Your task to perform on an android device: install app "Etsy: Buy & Sell Unique Items" Image 0: 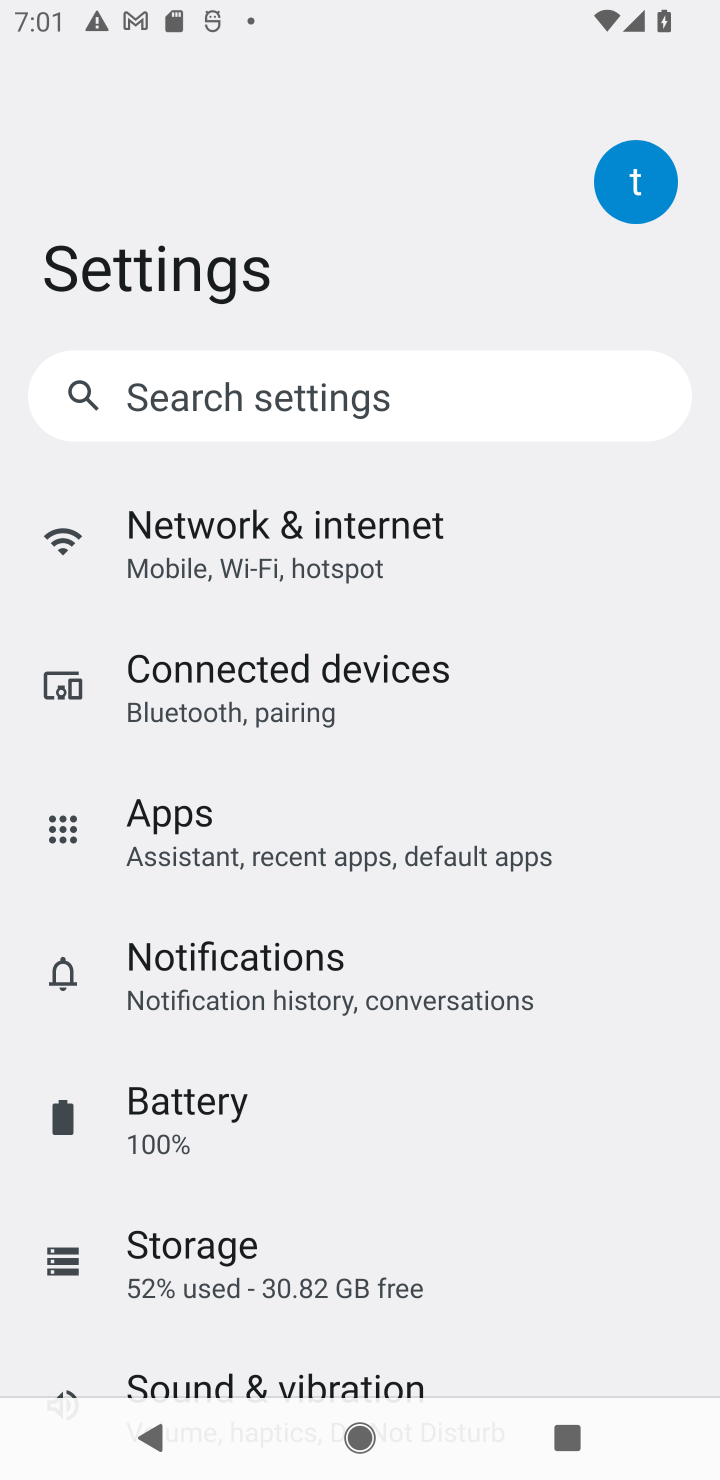
Step 0: press home button
Your task to perform on an android device: install app "Etsy: Buy & Sell Unique Items" Image 1: 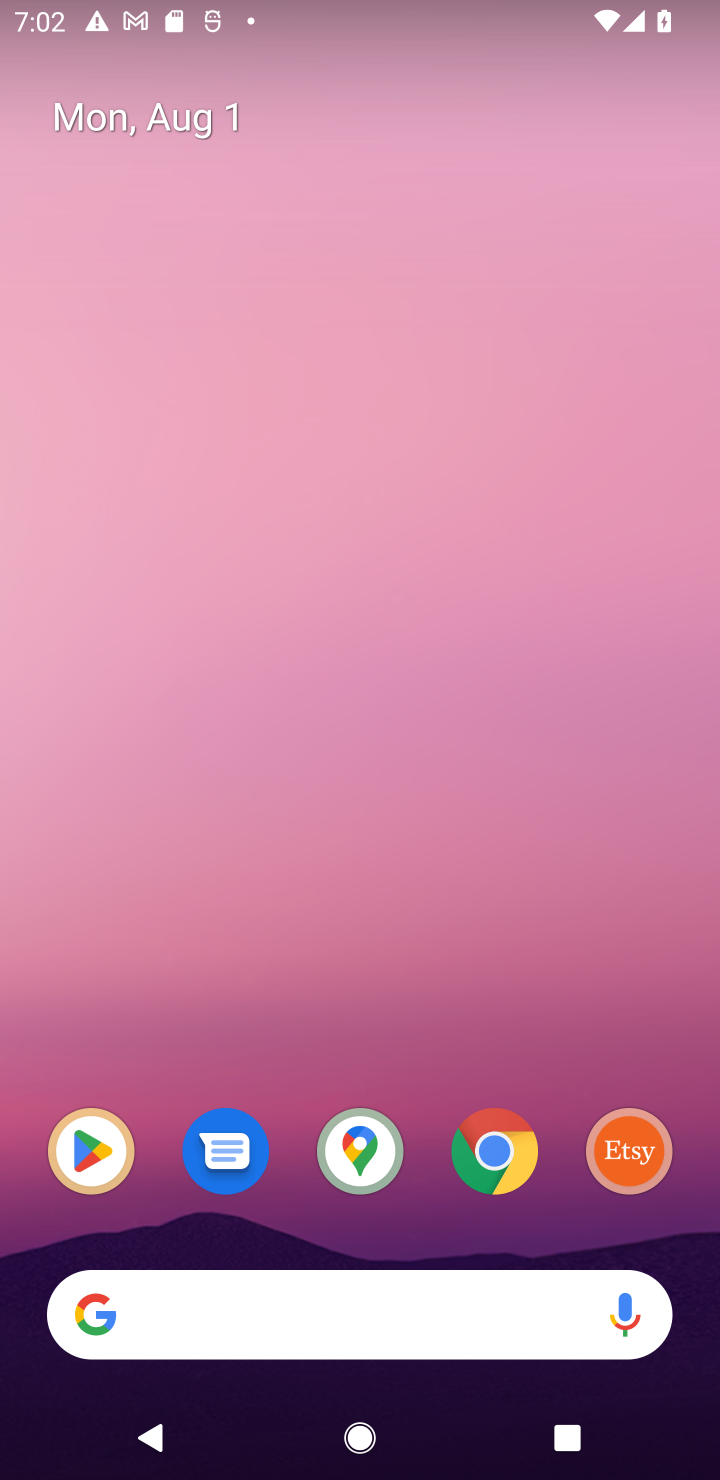
Step 1: click (397, 1292)
Your task to perform on an android device: install app "Etsy: Buy & Sell Unique Items" Image 2: 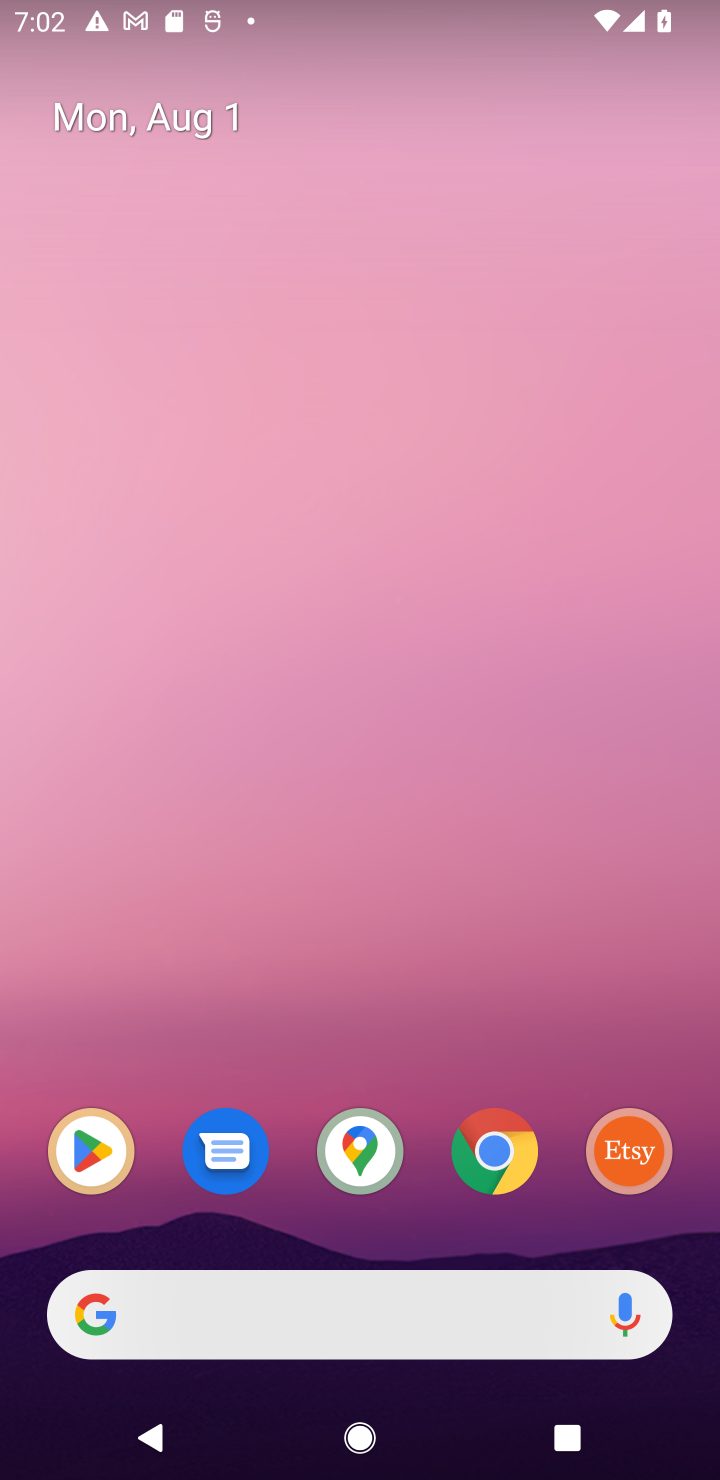
Step 2: drag from (397, 1292) to (255, 470)
Your task to perform on an android device: install app "Etsy: Buy & Sell Unique Items" Image 3: 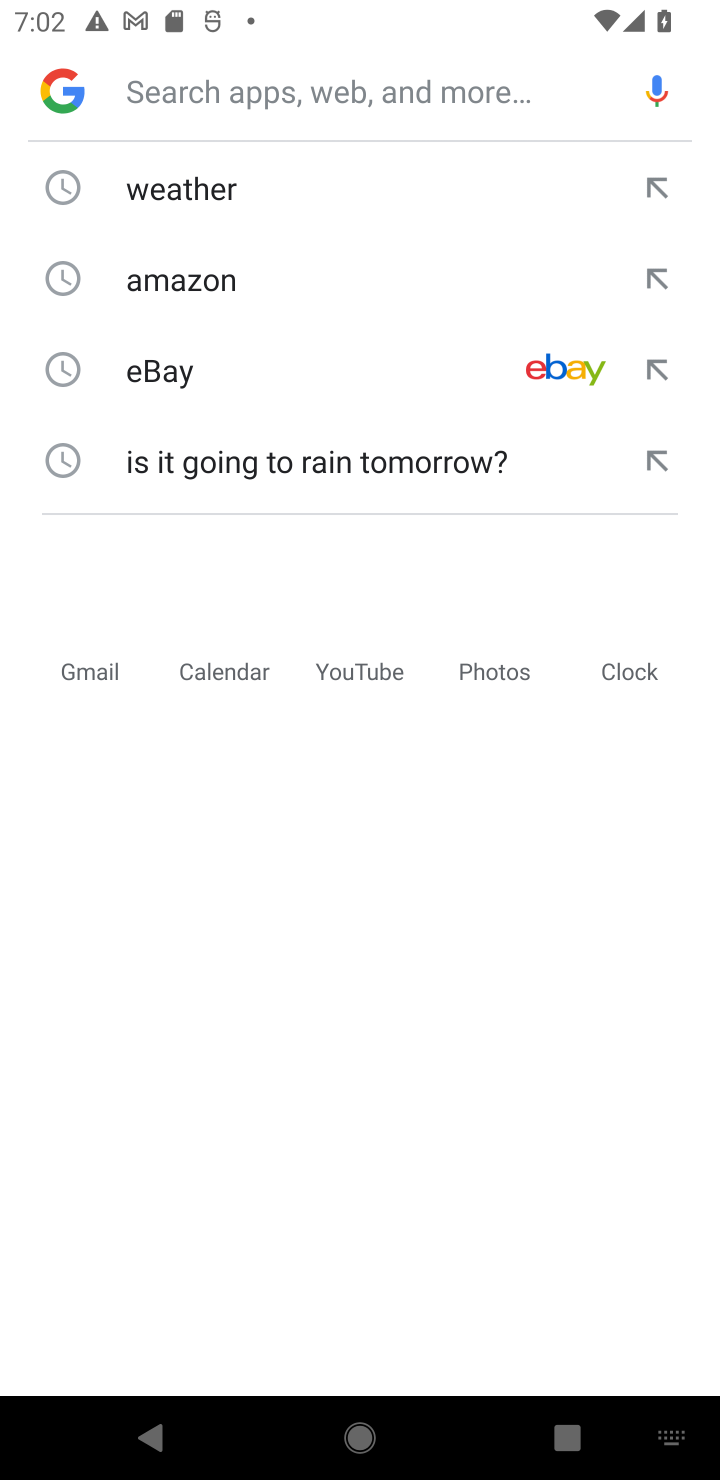
Step 3: press home button
Your task to perform on an android device: install app "Etsy: Buy & Sell Unique Items" Image 4: 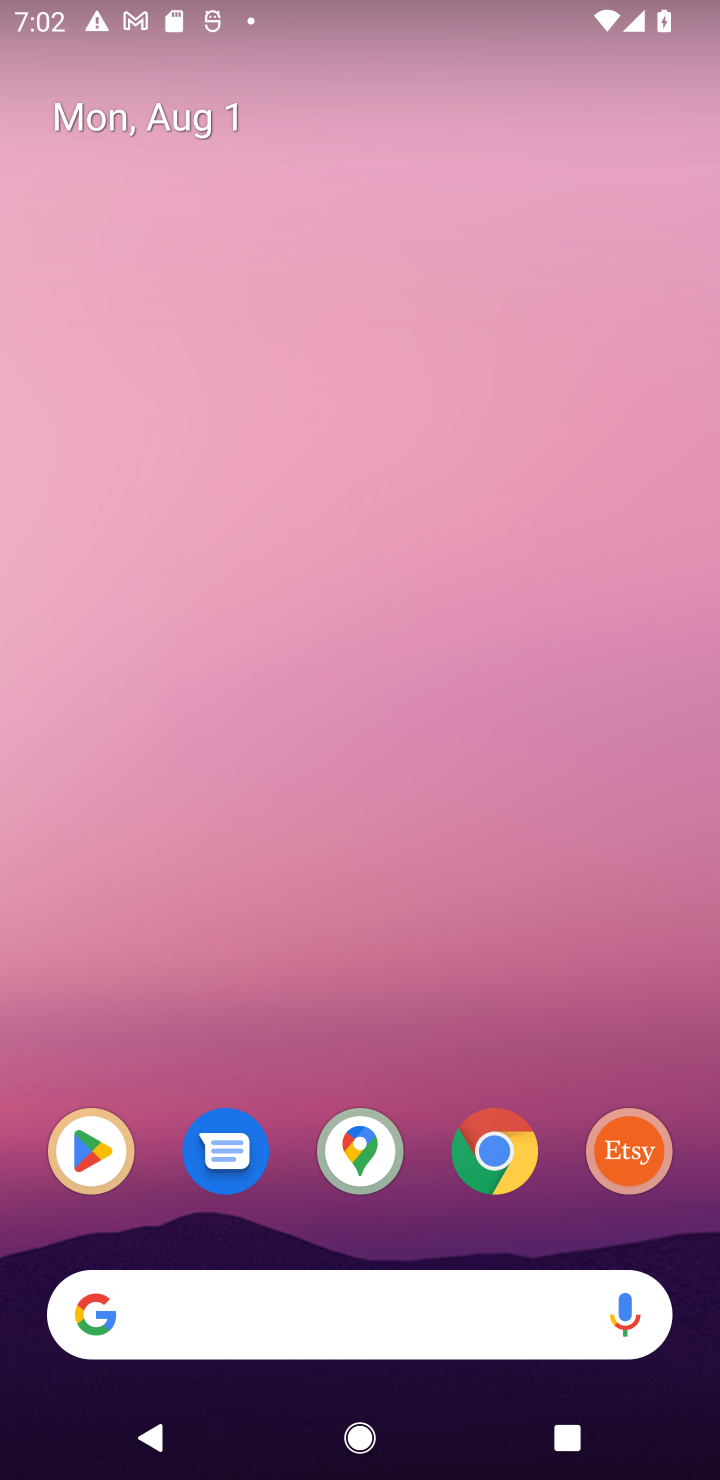
Step 4: click (523, 539)
Your task to perform on an android device: install app "Etsy: Buy & Sell Unique Items" Image 5: 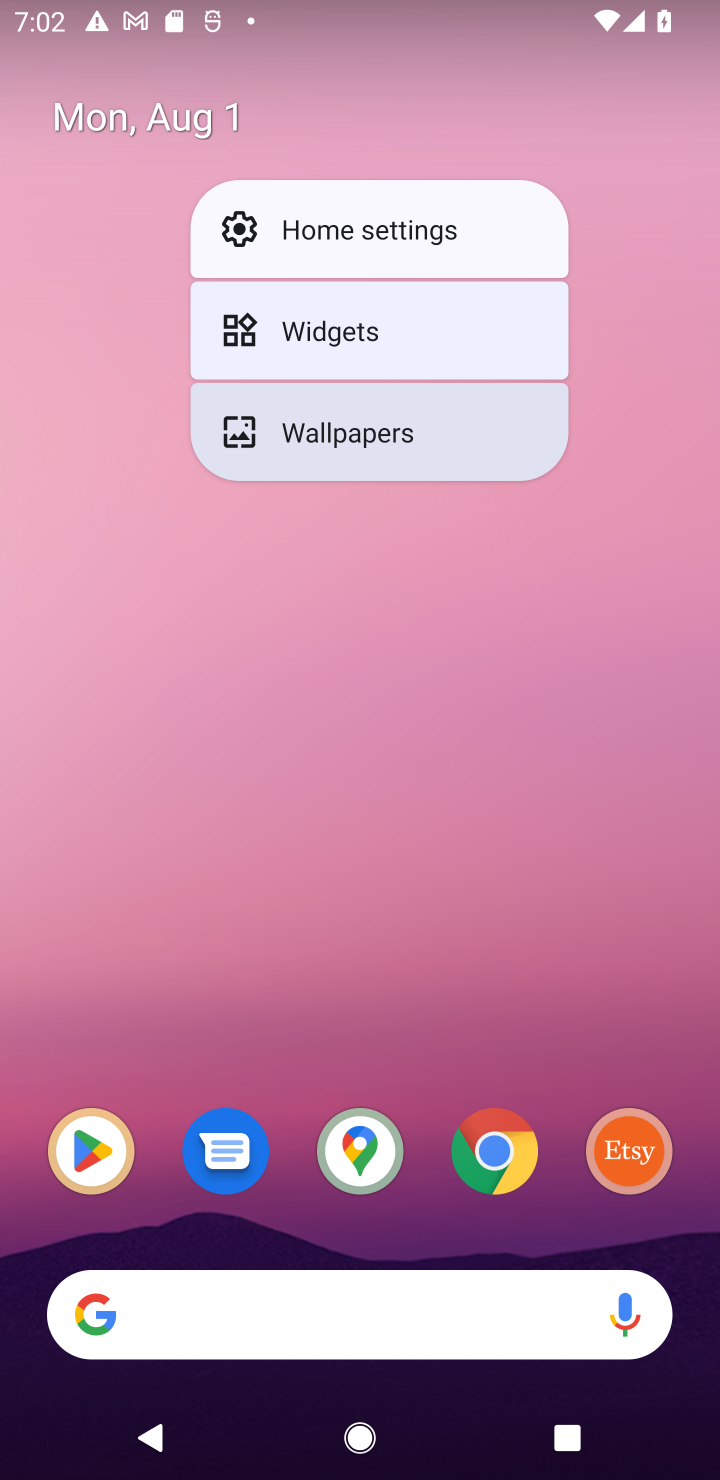
Step 5: click (355, 580)
Your task to perform on an android device: install app "Etsy: Buy & Sell Unique Items" Image 6: 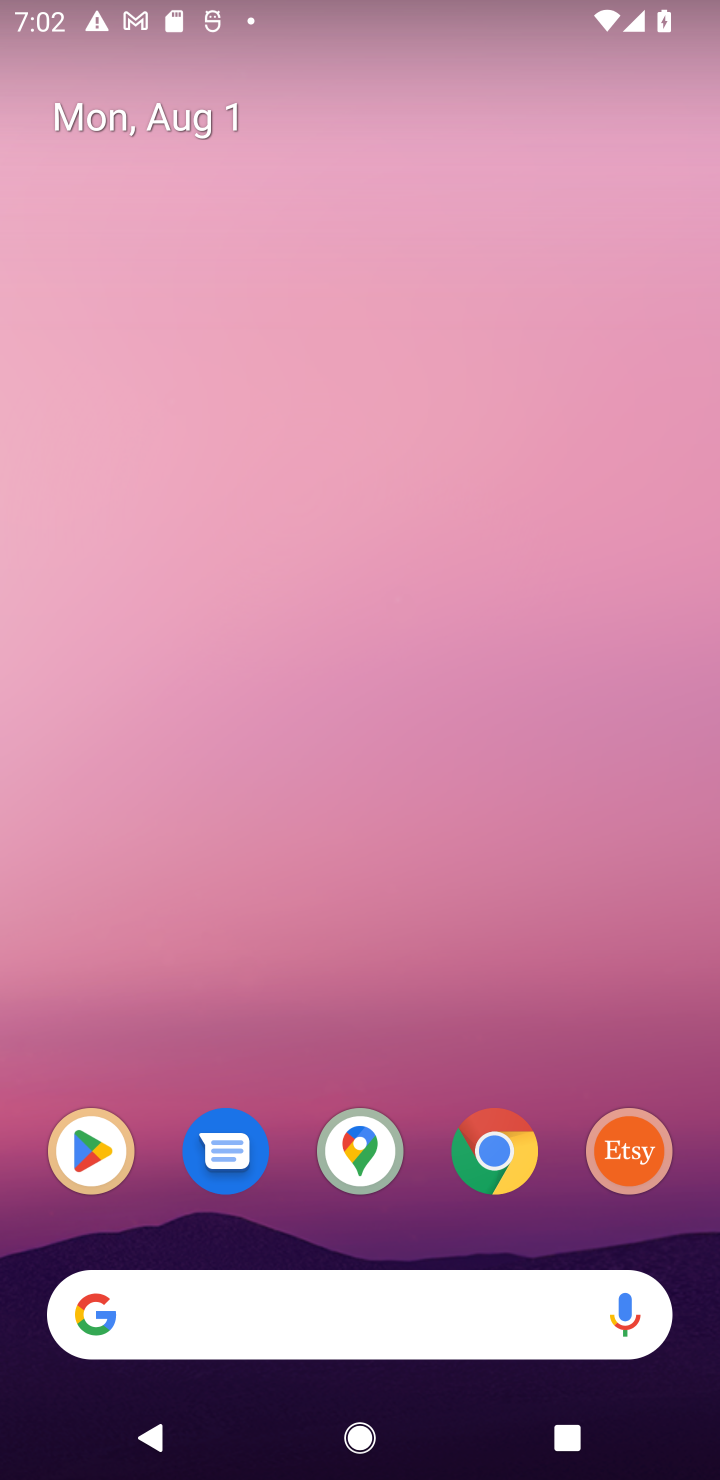
Step 6: drag from (257, 1215) to (412, 556)
Your task to perform on an android device: install app "Etsy: Buy & Sell Unique Items" Image 7: 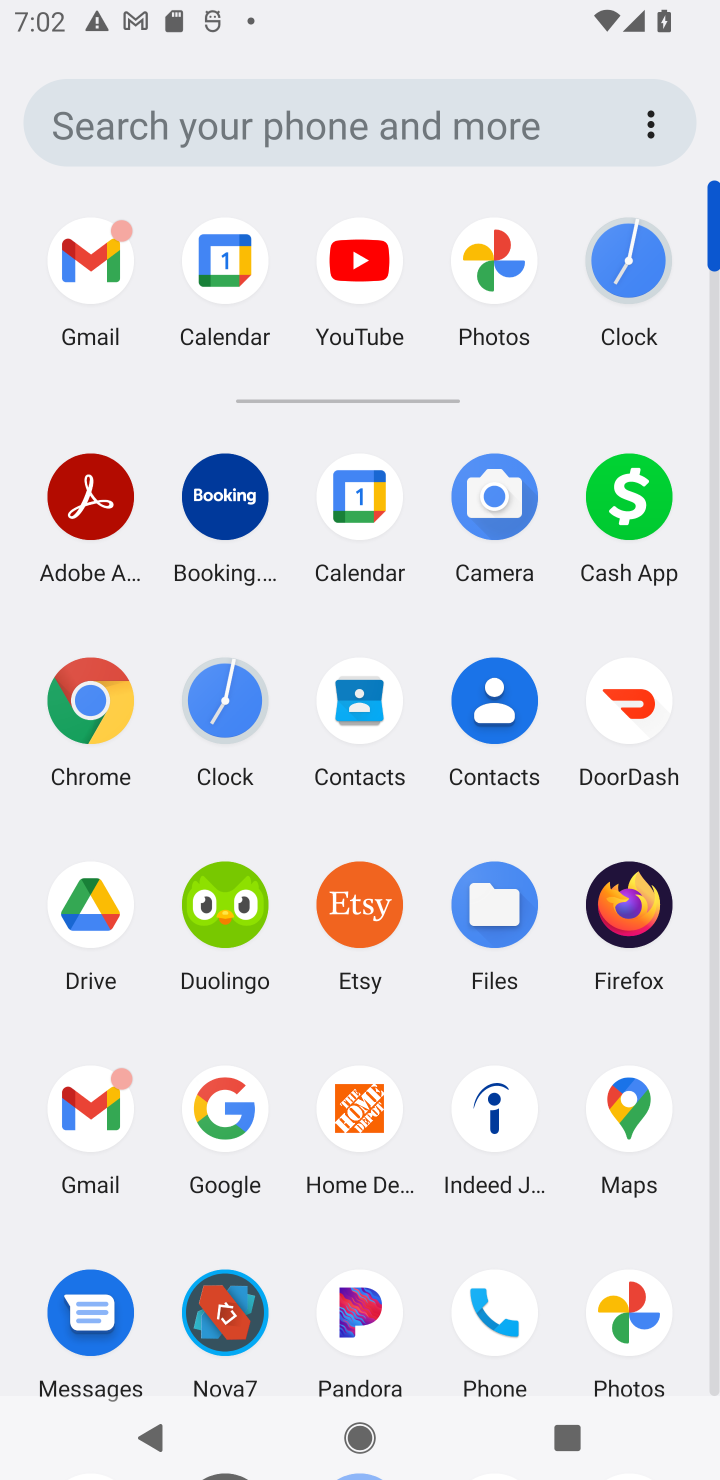
Step 7: drag from (466, 1398) to (459, 854)
Your task to perform on an android device: install app "Etsy: Buy & Sell Unique Items" Image 8: 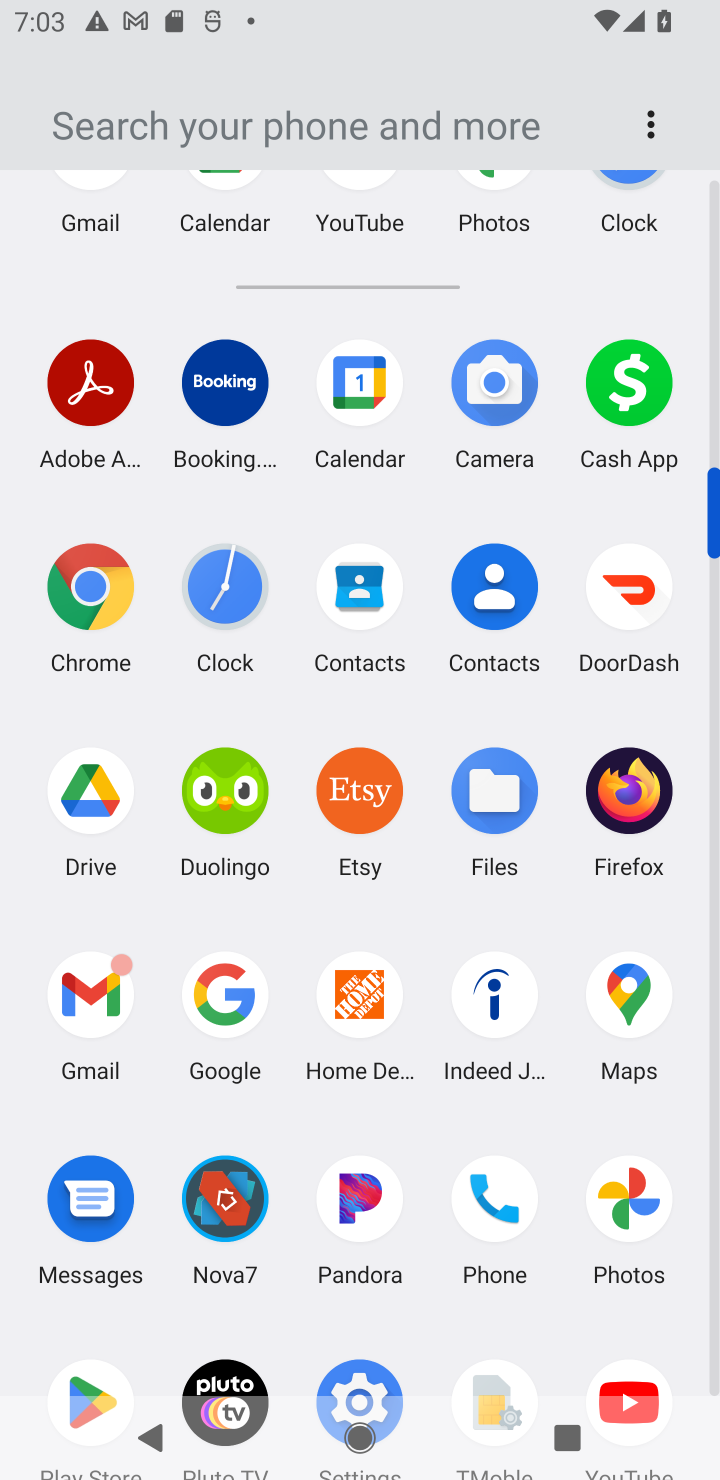
Step 8: click (116, 1405)
Your task to perform on an android device: install app "Etsy: Buy & Sell Unique Items" Image 9: 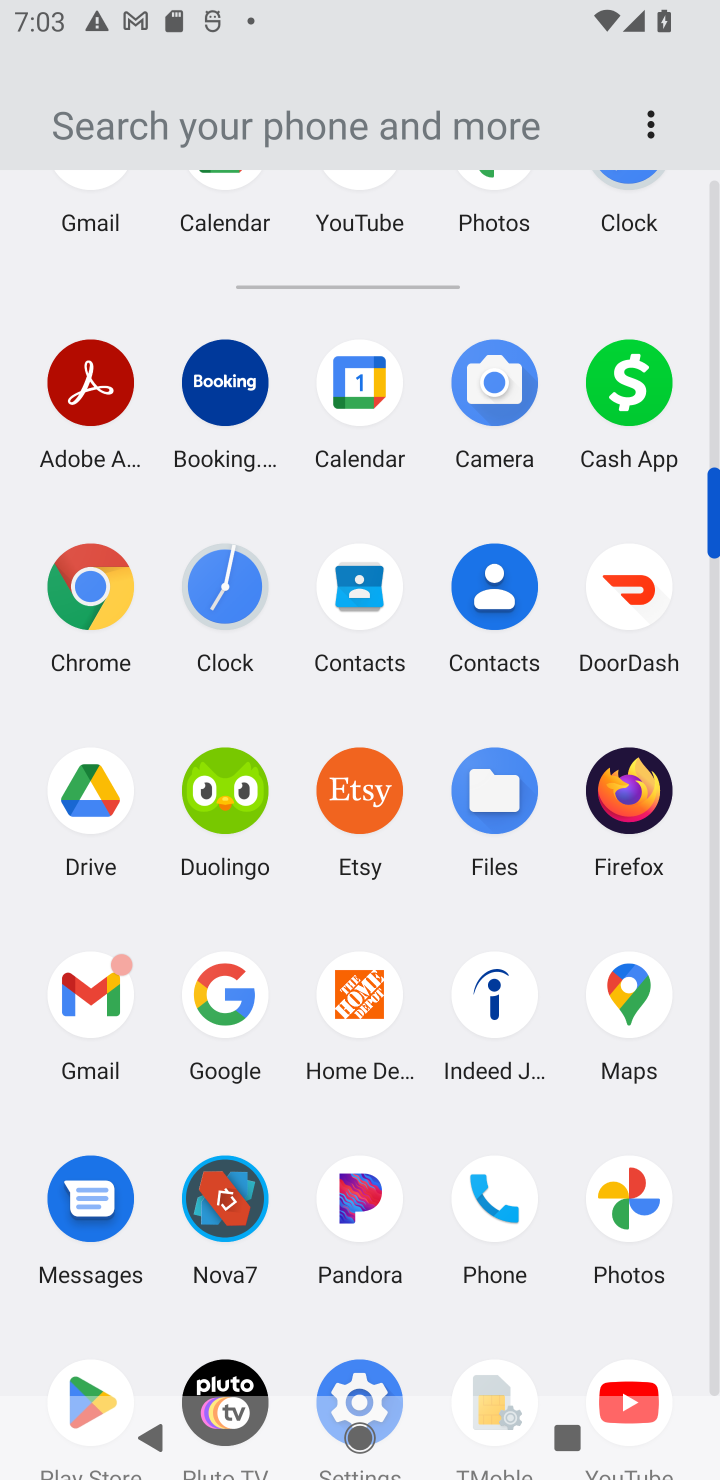
Step 9: click (86, 1385)
Your task to perform on an android device: install app "Etsy: Buy & Sell Unique Items" Image 10: 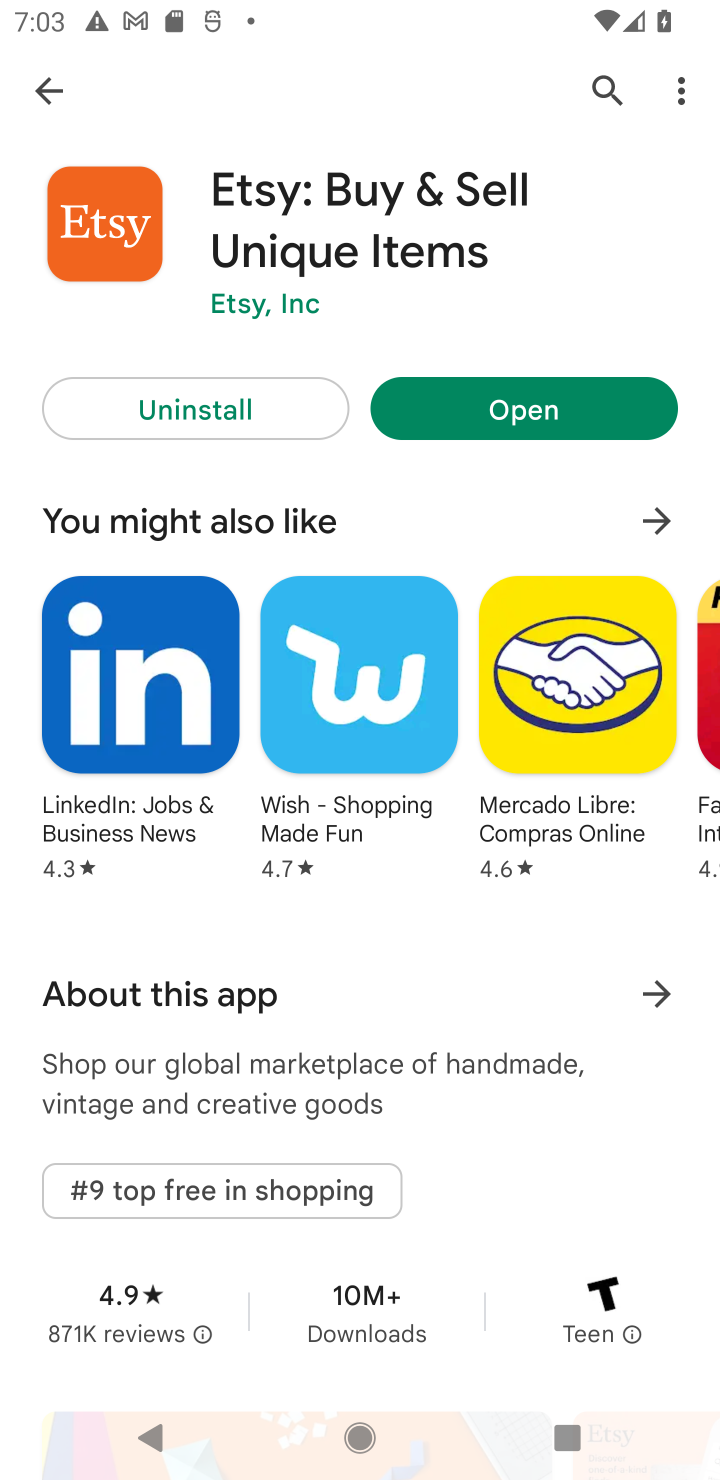
Step 10: task complete